Your task to perform on an android device: add a contact in the contacts app Image 0: 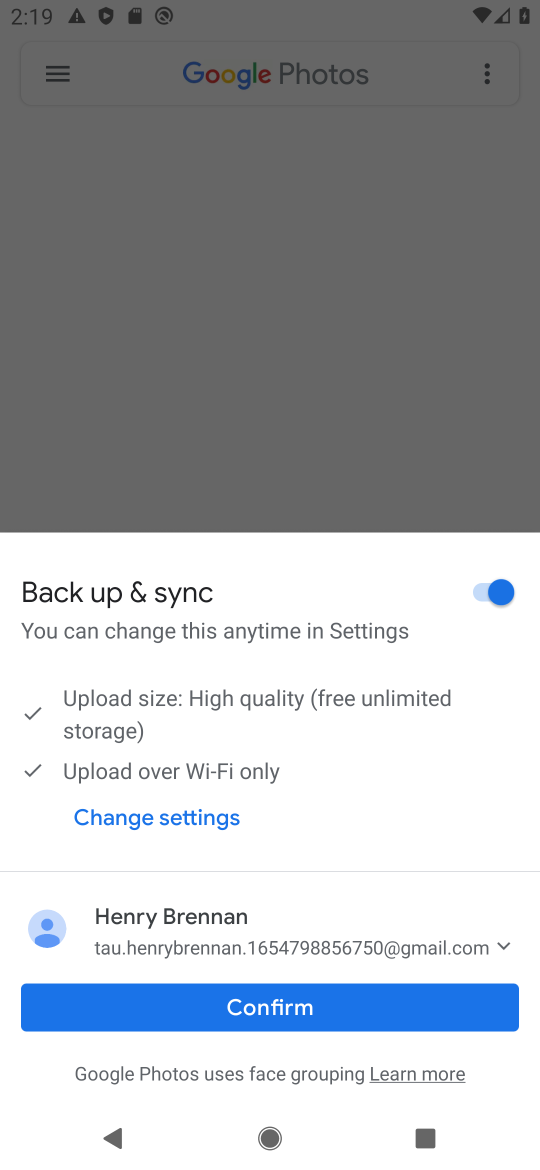
Step 0: press home button
Your task to perform on an android device: add a contact in the contacts app Image 1: 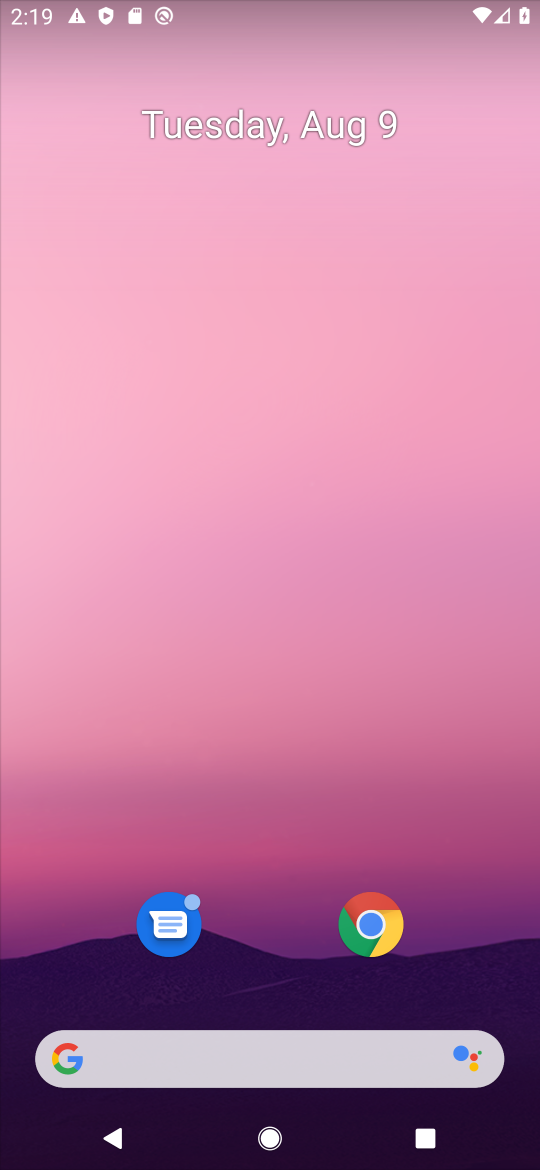
Step 1: drag from (290, 676) to (269, 0)
Your task to perform on an android device: add a contact in the contacts app Image 2: 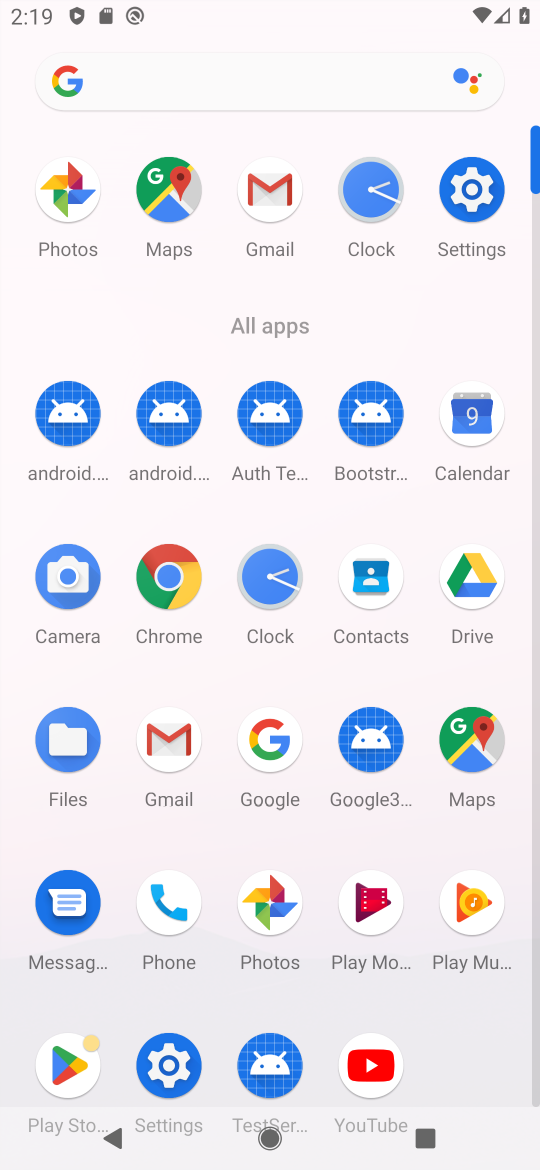
Step 2: click (381, 581)
Your task to perform on an android device: add a contact in the contacts app Image 3: 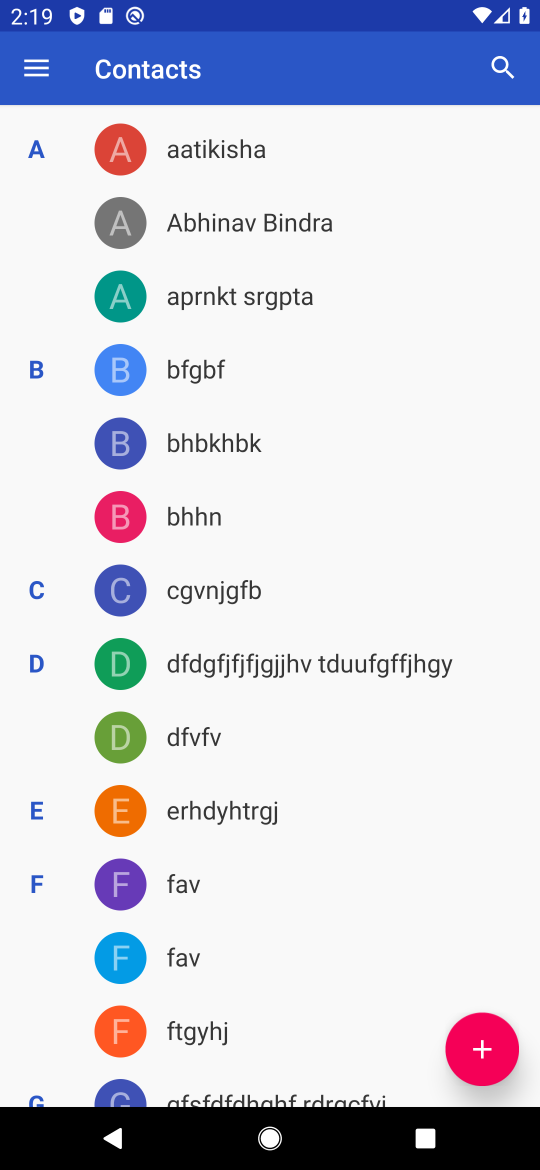
Step 3: click (472, 1050)
Your task to perform on an android device: add a contact in the contacts app Image 4: 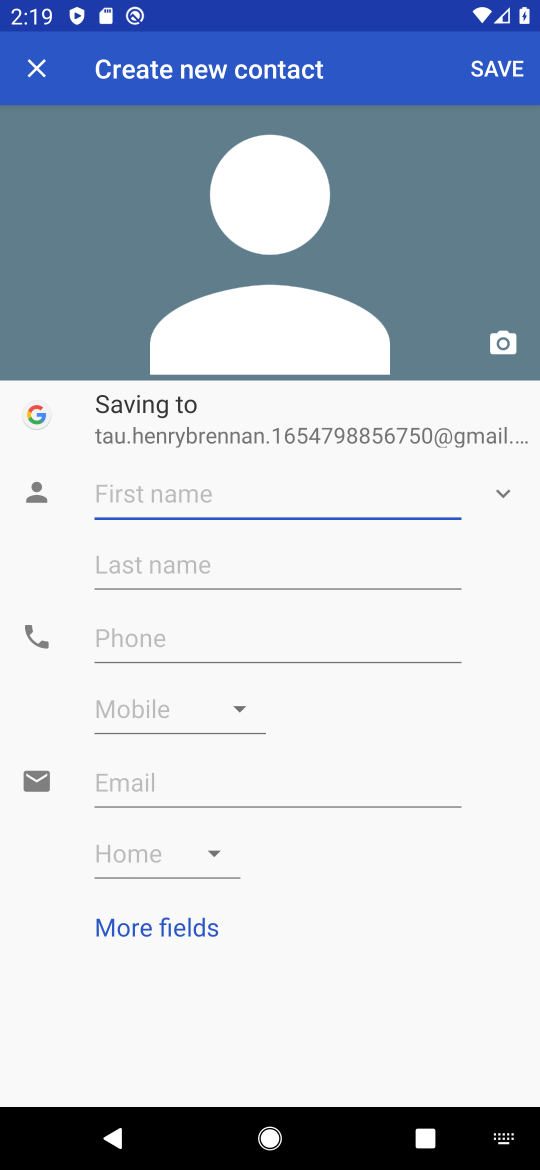
Step 4: type "Abha"
Your task to perform on an android device: add a contact in the contacts app Image 5: 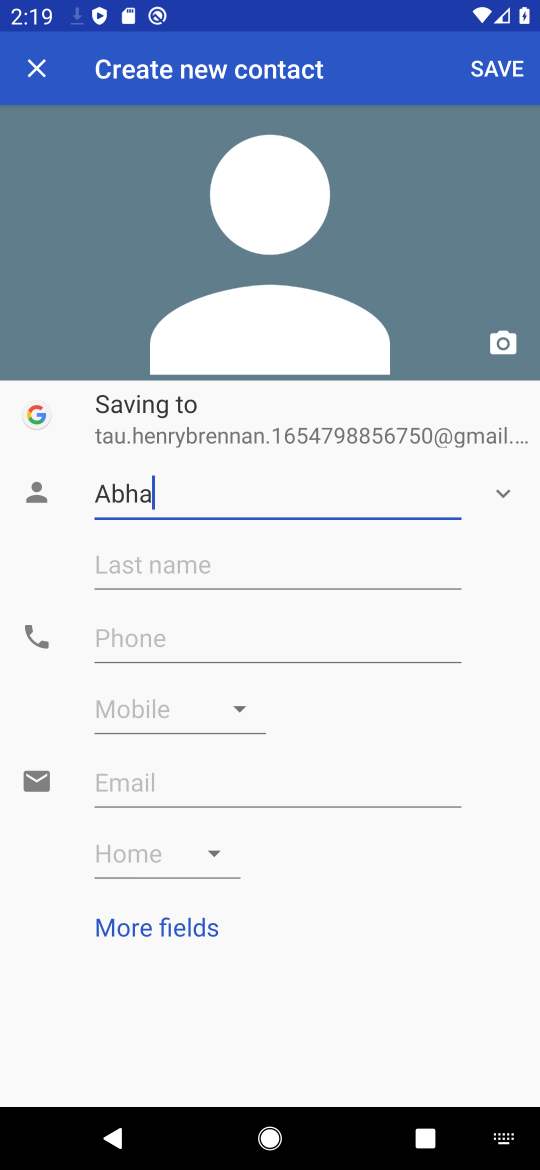
Step 5: click (317, 658)
Your task to perform on an android device: add a contact in the contacts app Image 6: 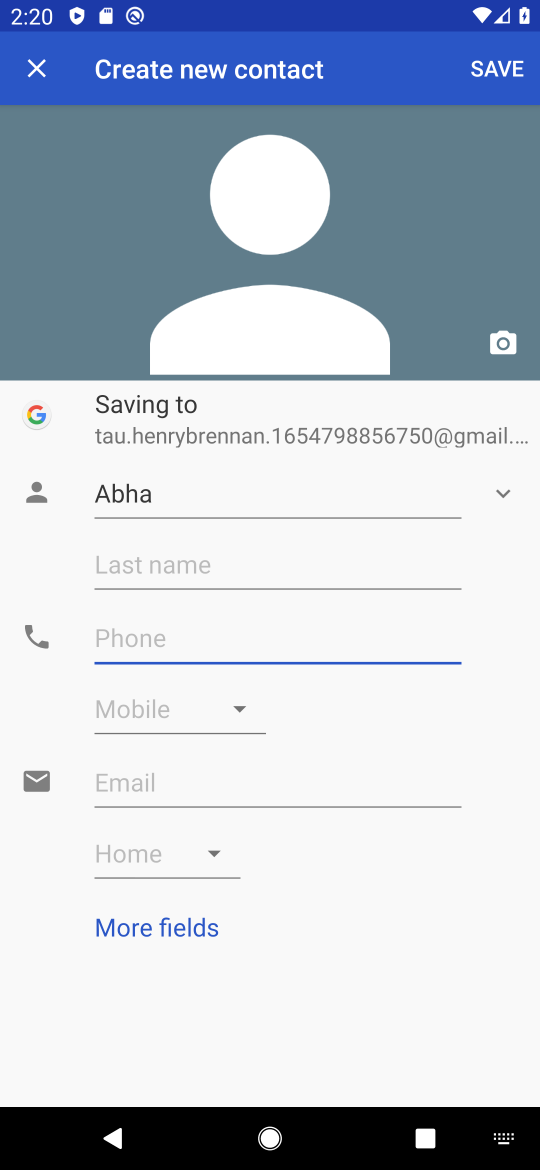
Step 6: type "+919999775533"
Your task to perform on an android device: add a contact in the contacts app Image 7: 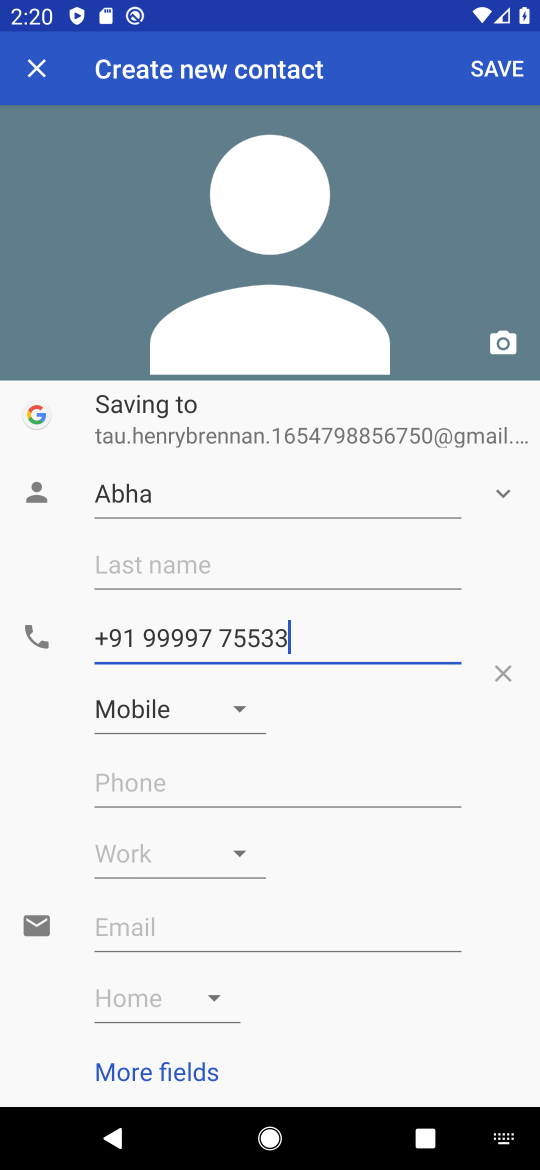
Step 7: click (509, 71)
Your task to perform on an android device: add a contact in the contacts app Image 8: 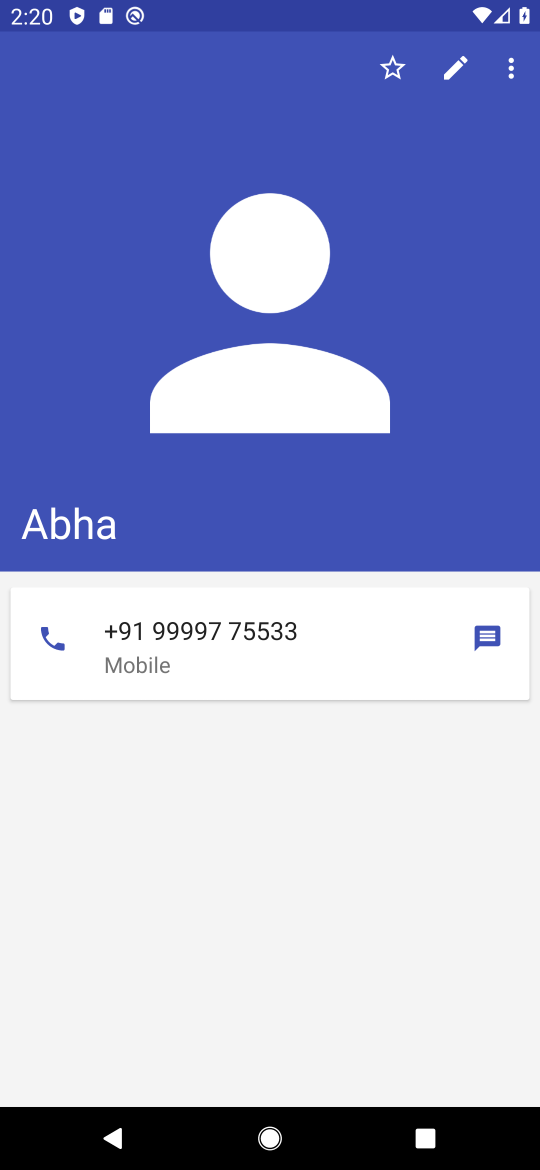
Step 8: task complete